Your task to perform on an android device: Go to Wikipedia Image 0: 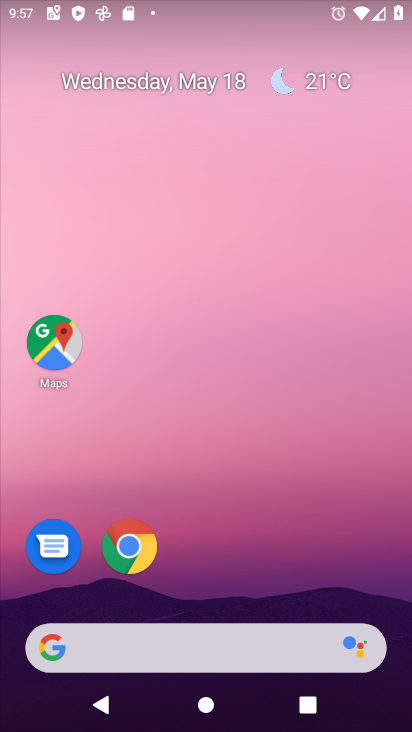
Step 0: drag from (393, 619) to (255, 107)
Your task to perform on an android device: Go to Wikipedia Image 1: 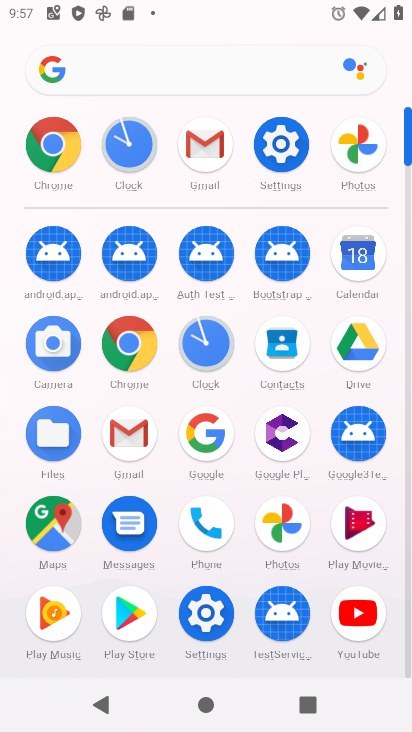
Step 1: click (47, 156)
Your task to perform on an android device: Go to Wikipedia Image 2: 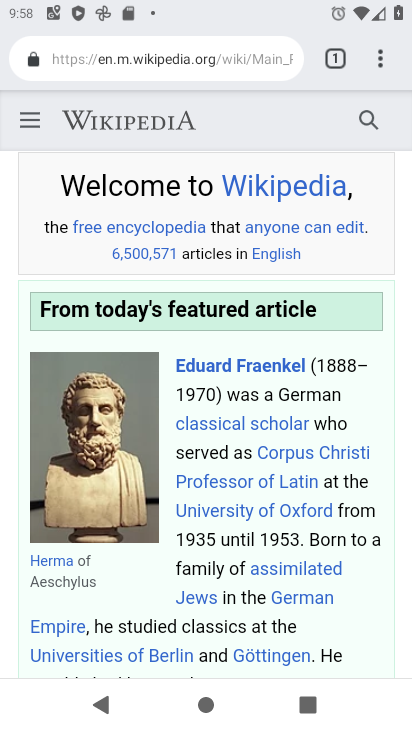
Step 2: task complete